Your task to perform on an android device: Go to calendar. Show me events next week Image 0: 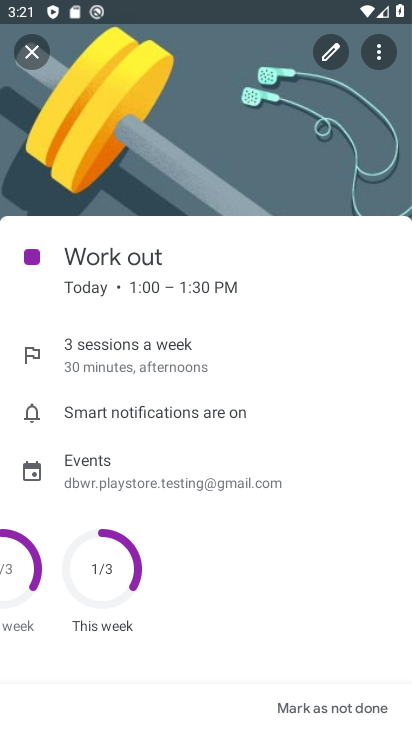
Step 0: task impossible